Your task to perform on an android device: Open Amazon Image 0: 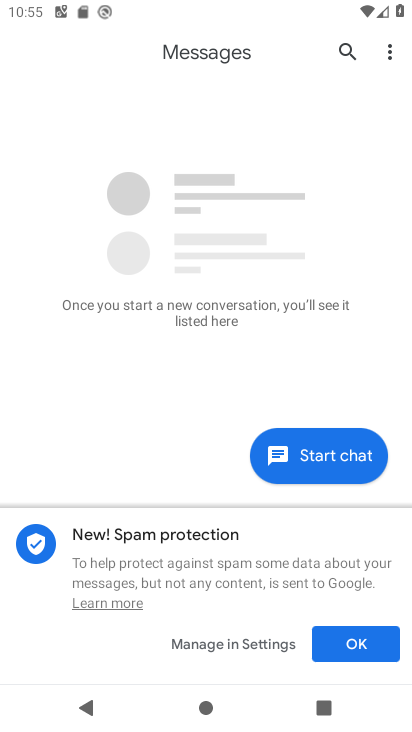
Step 0: press home button
Your task to perform on an android device: Open Amazon Image 1: 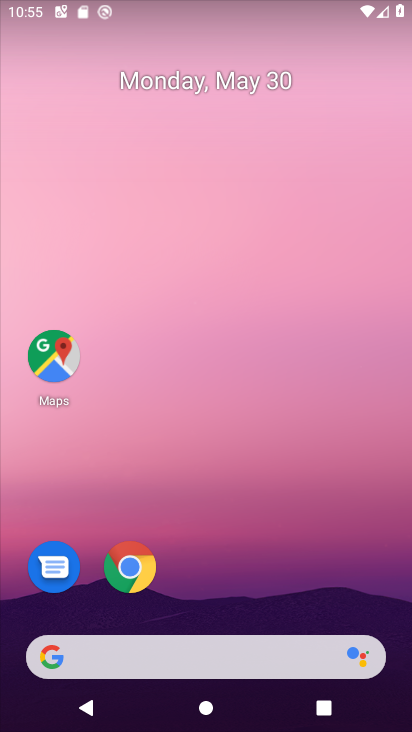
Step 1: drag from (244, 601) to (248, 196)
Your task to perform on an android device: Open Amazon Image 2: 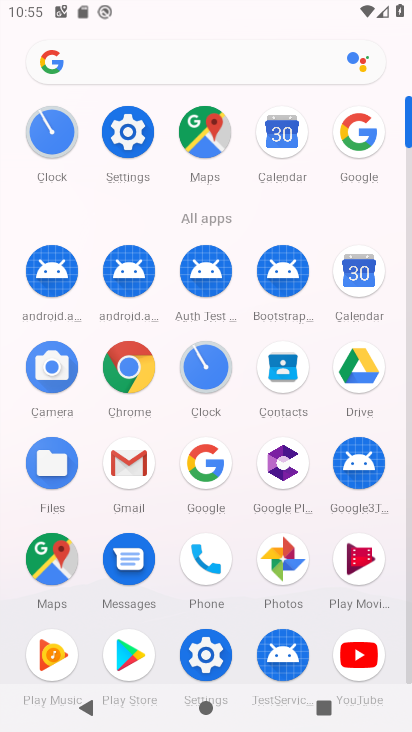
Step 2: click (128, 365)
Your task to perform on an android device: Open Amazon Image 3: 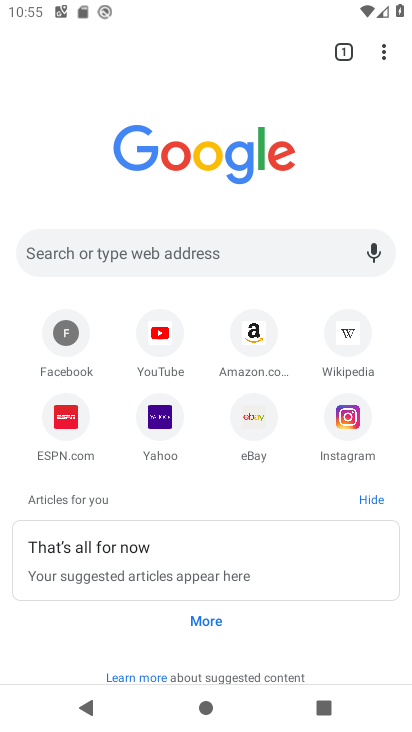
Step 3: click (254, 339)
Your task to perform on an android device: Open Amazon Image 4: 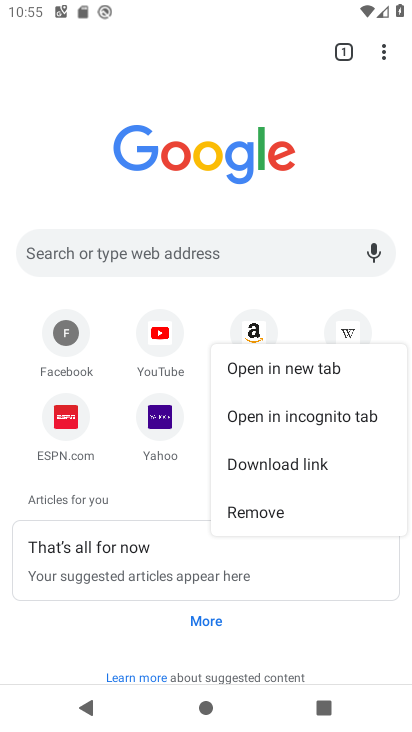
Step 4: click (251, 333)
Your task to perform on an android device: Open Amazon Image 5: 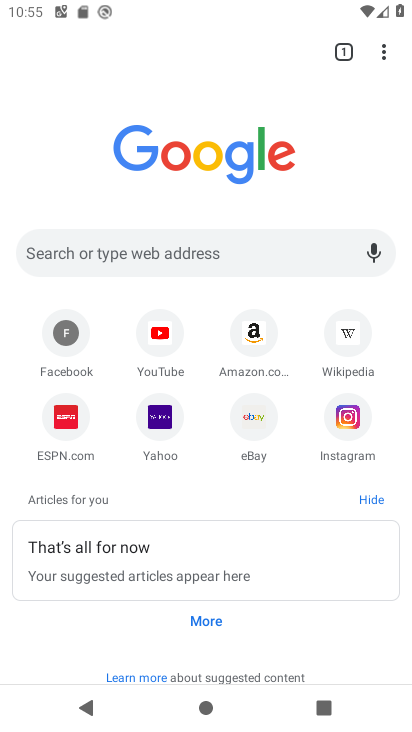
Step 5: click (251, 333)
Your task to perform on an android device: Open Amazon Image 6: 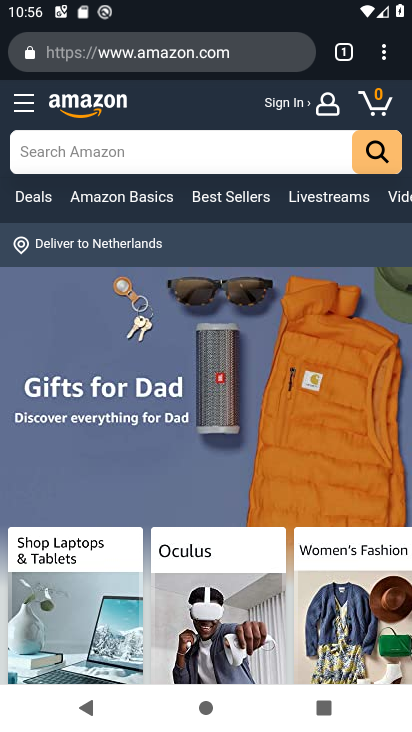
Step 6: task complete